Your task to perform on an android device: Show me recent news Image 0: 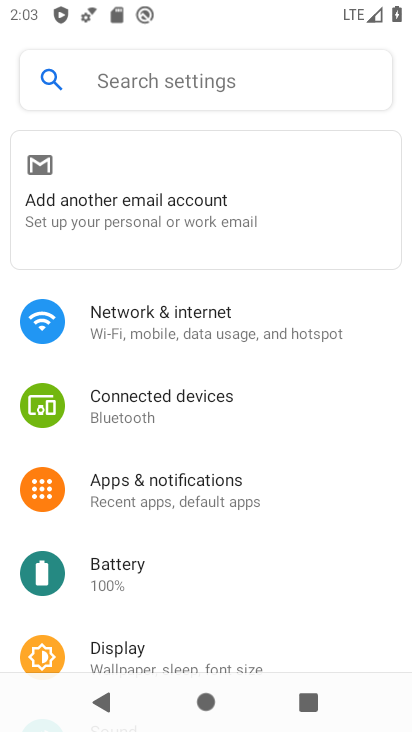
Step 0: press home button
Your task to perform on an android device: Show me recent news Image 1: 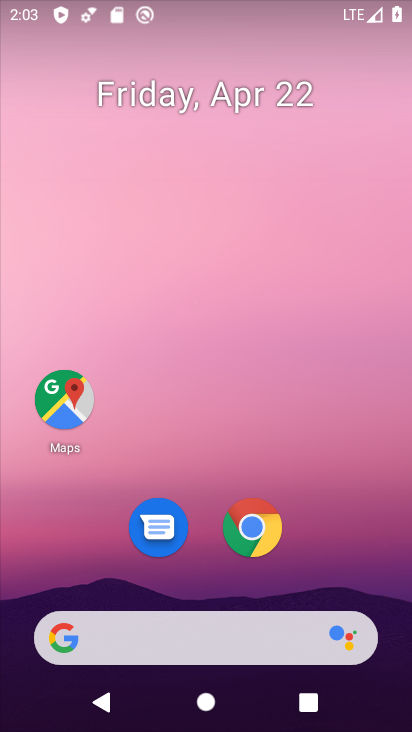
Step 1: click (271, 540)
Your task to perform on an android device: Show me recent news Image 2: 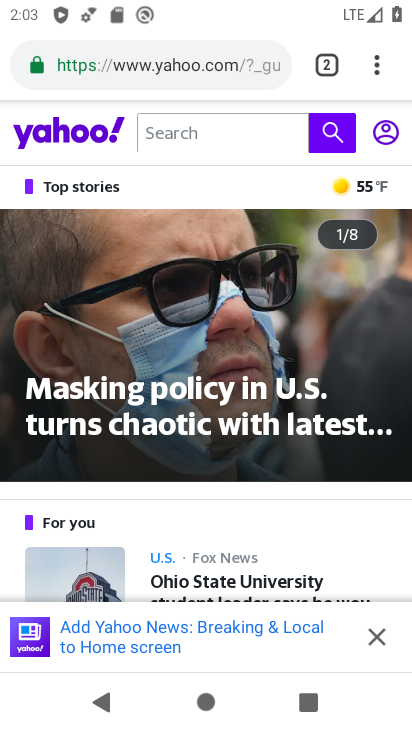
Step 2: click (333, 63)
Your task to perform on an android device: Show me recent news Image 3: 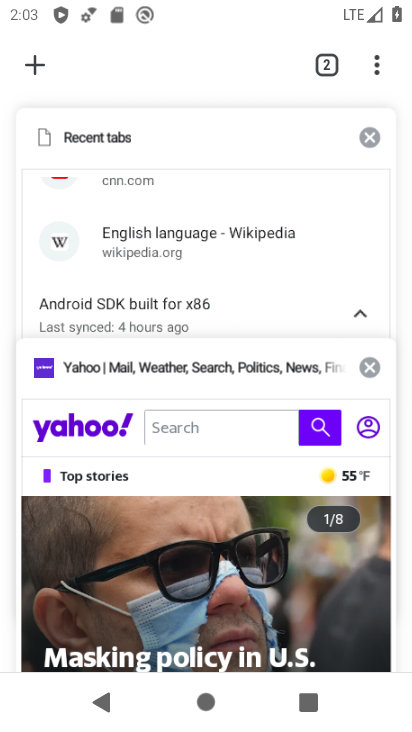
Step 3: click (36, 62)
Your task to perform on an android device: Show me recent news Image 4: 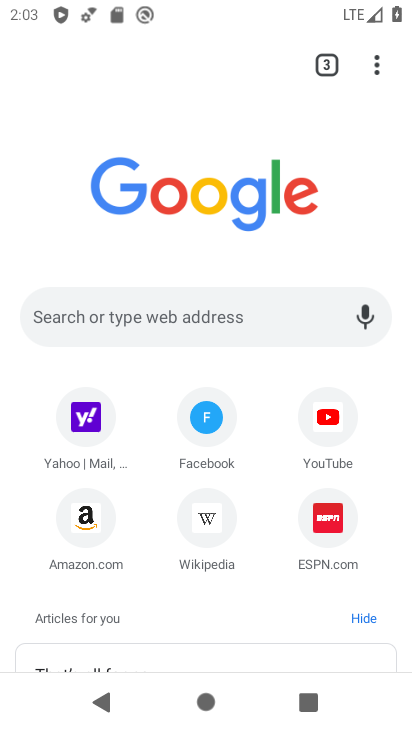
Step 4: click (149, 328)
Your task to perform on an android device: Show me recent news Image 5: 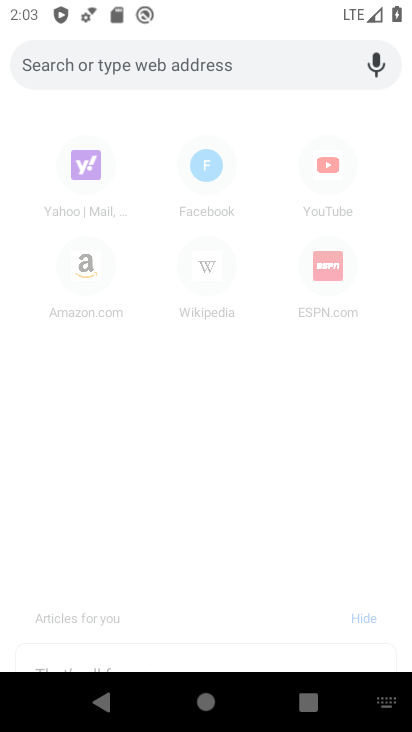
Step 5: type "recent news"
Your task to perform on an android device: Show me recent news Image 6: 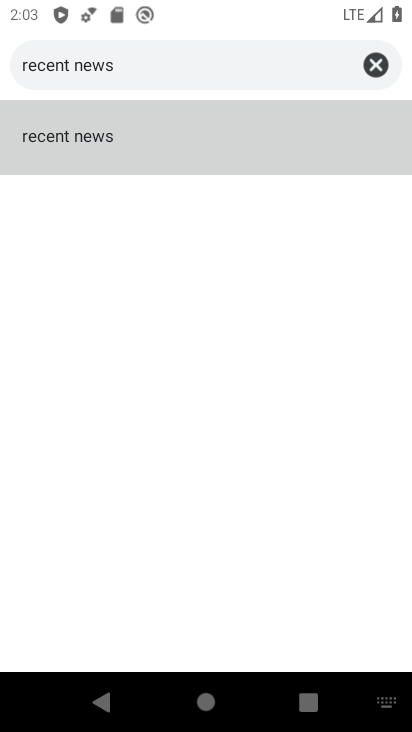
Step 6: click (88, 140)
Your task to perform on an android device: Show me recent news Image 7: 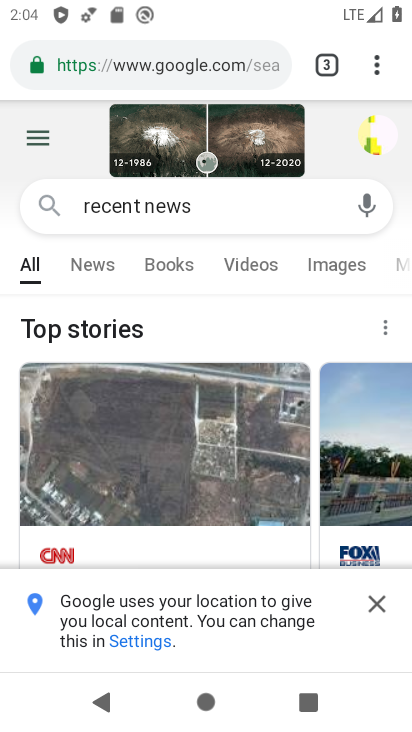
Step 7: click (99, 267)
Your task to perform on an android device: Show me recent news Image 8: 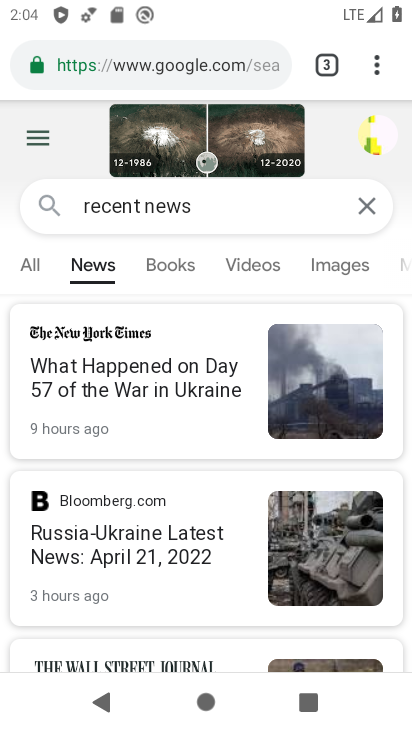
Step 8: task complete